Your task to perform on an android device: Open location settings Image 0: 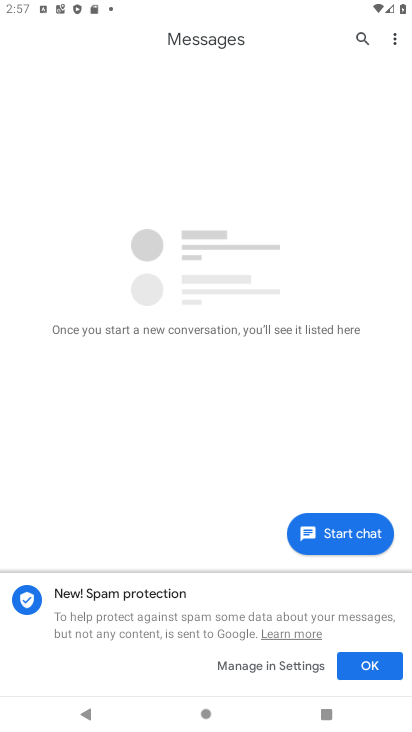
Step 0: press home button
Your task to perform on an android device: Open location settings Image 1: 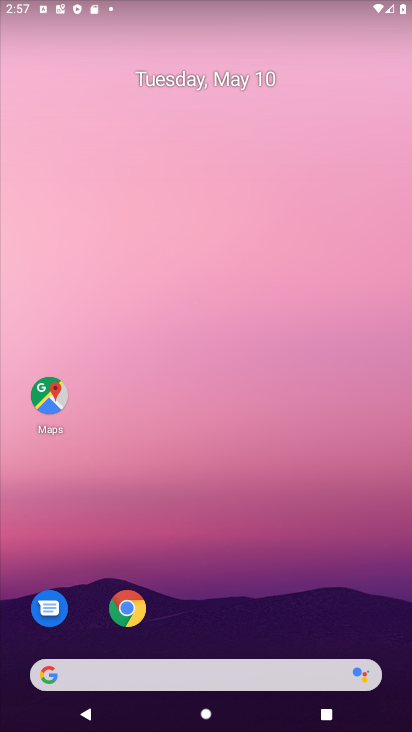
Step 1: drag from (389, 643) to (302, 148)
Your task to perform on an android device: Open location settings Image 2: 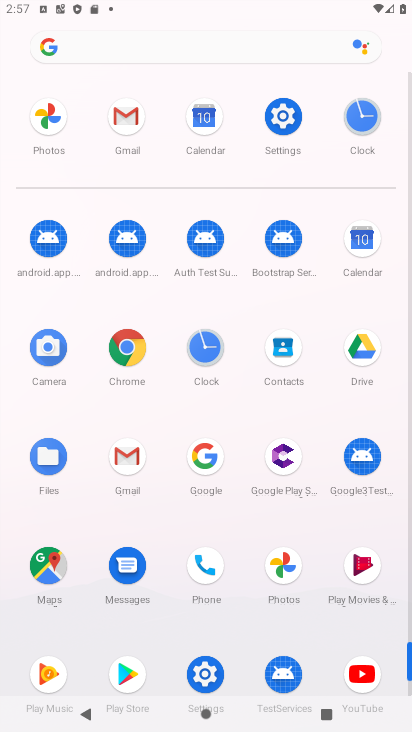
Step 2: click (410, 635)
Your task to perform on an android device: Open location settings Image 3: 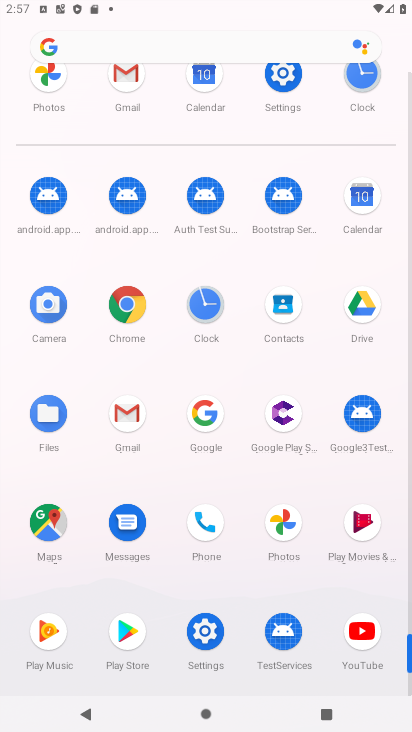
Step 3: click (202, 631)
Your task to perform on an android device: Open location settings Image 4: 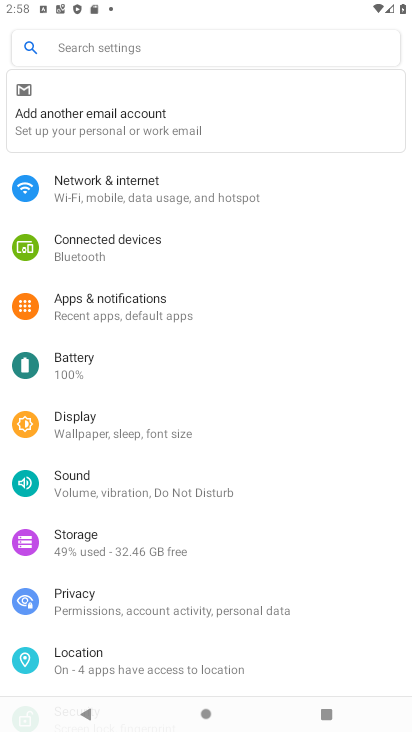
Step 4: click (77, 657)
Your task to perform on an android device: Open location settings Image 5: 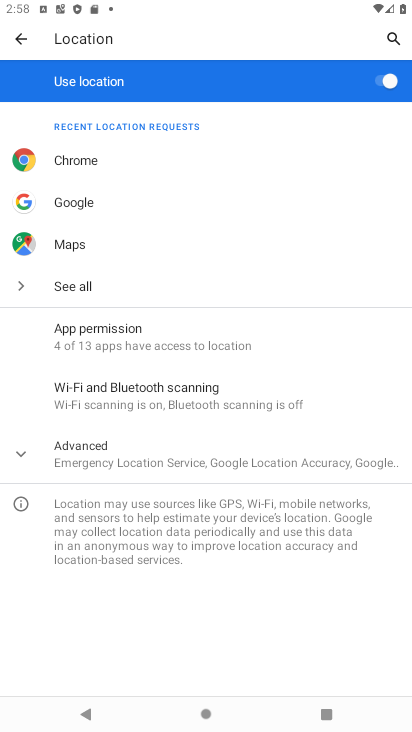
Step 5: click (21, 455)
Your task to perform on an android device: Open location settings Image 6: 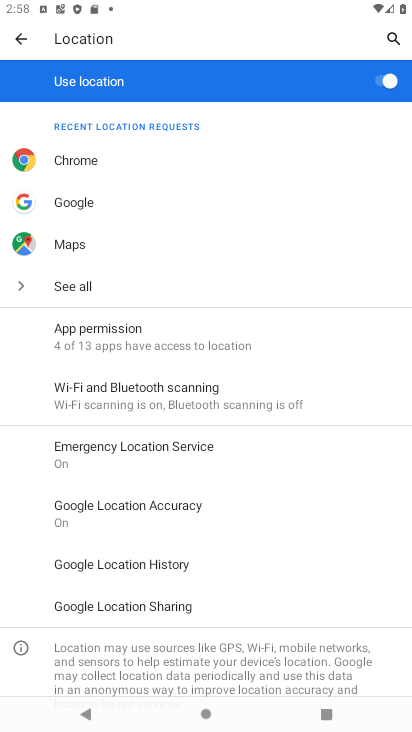
Step 6: task complete